Your task to perform on an android device: turn on wifi Image 0: 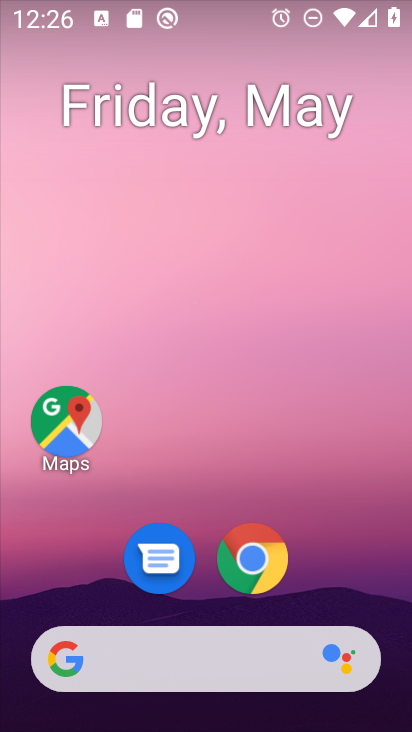
Step 0: drag from (398, 646) to (341, 132)
Your task to perform on an android device: turn on wifi Image 1: 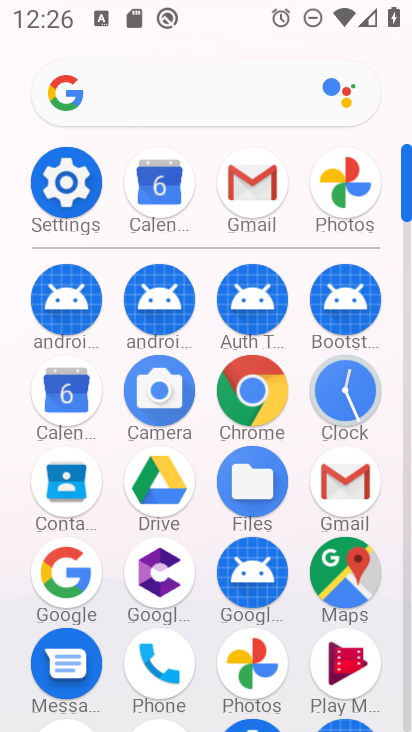
Step 1: click (409, 720)
Your task to perform on an android device: turn on wifi Image 2: 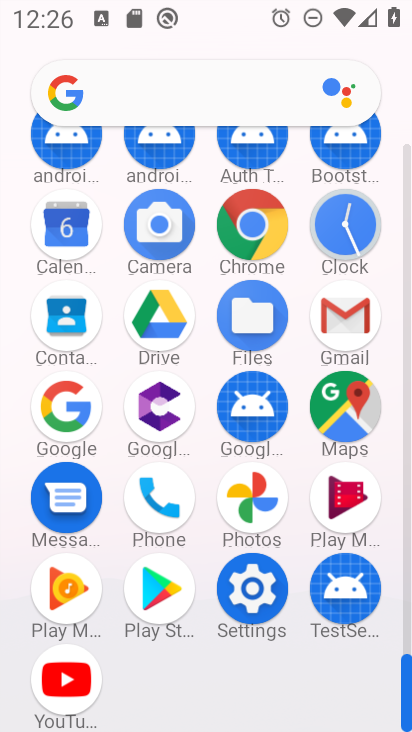
Step 2: click (249, 588)
Your task to perform on an android device: turn on wifi Image 3: 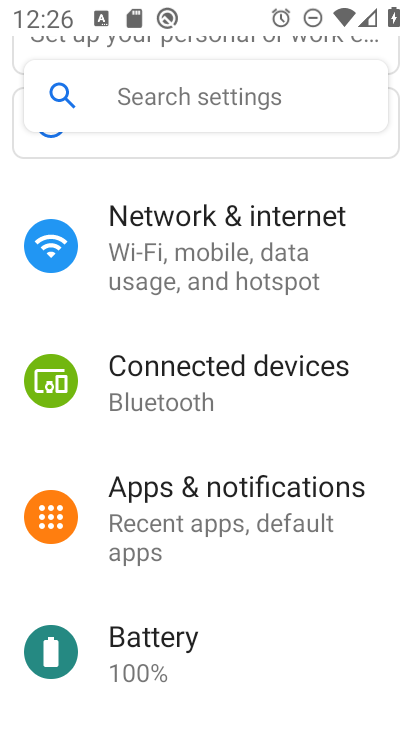
Step 3: click (178, 244)
Your task to perform on an android device: turn on wifi Image 4: 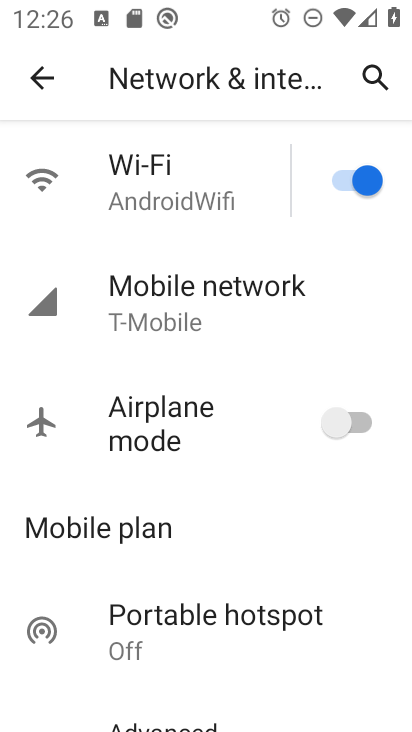
Step 4: task complete